Your task to perform on an android device: open app "Adobe Express: Graphic Design" Image 0: 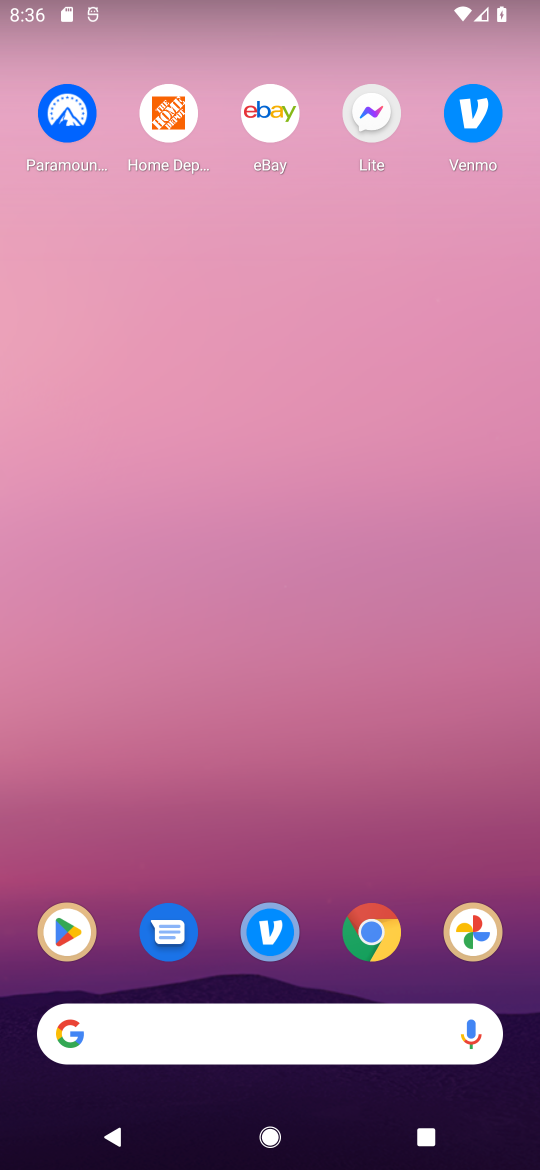
Step 0: click (55, 924)
Your task to perform on an android device: open app "Adobe Express: Graphic Design" Image 1: 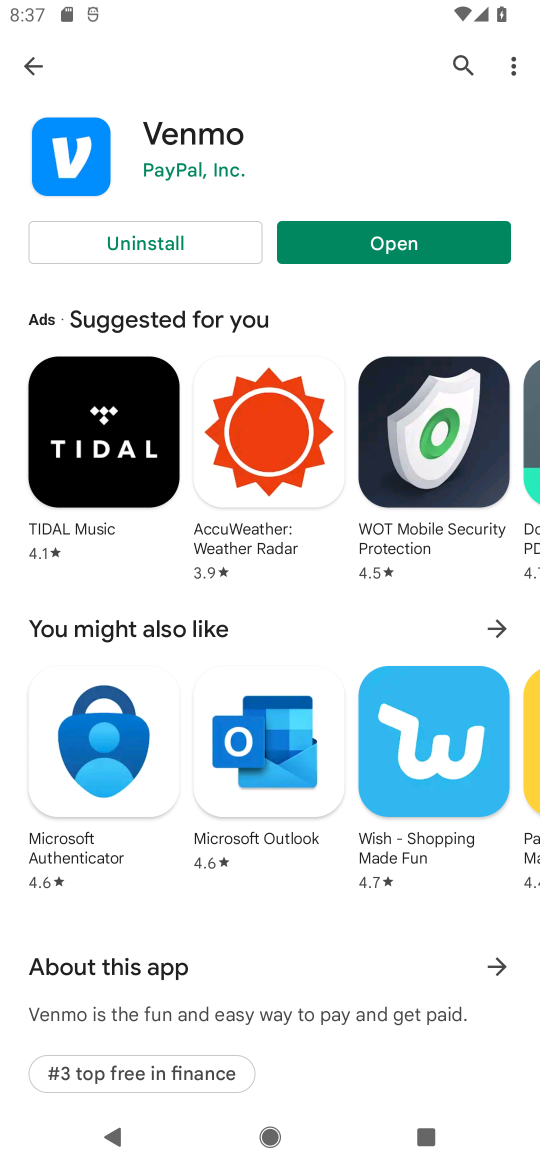
Step 1: click (449, 60)
Your task to perform on an android device: open app "Adobe Express: Graphic Design" Image 2: 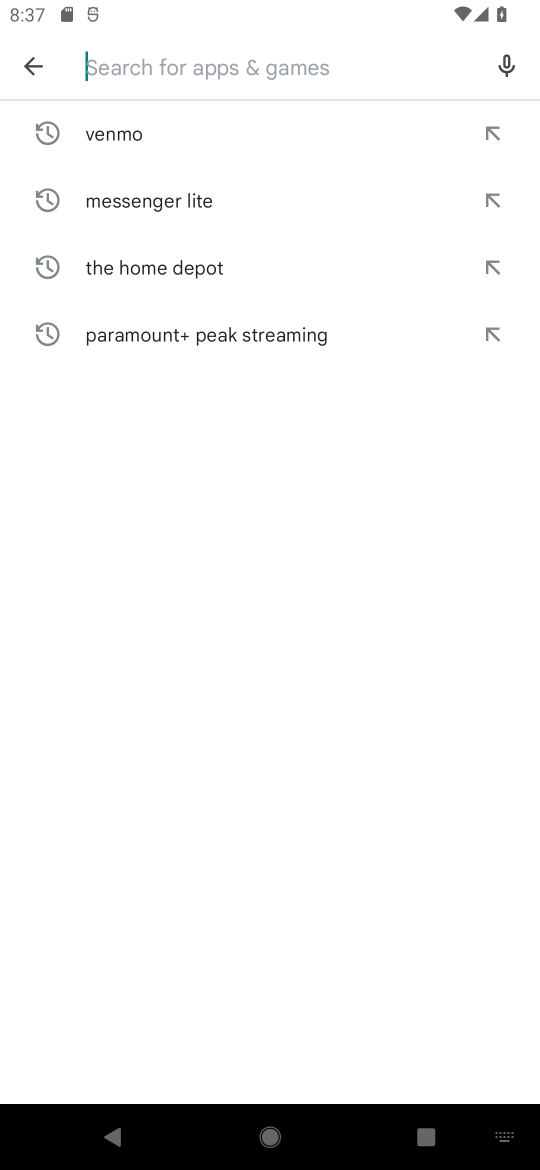
Step 2: type "adobe express: graphic design"
Your task to perform on an android device: open app "Adobe Express: Graphic Design" Image 3: 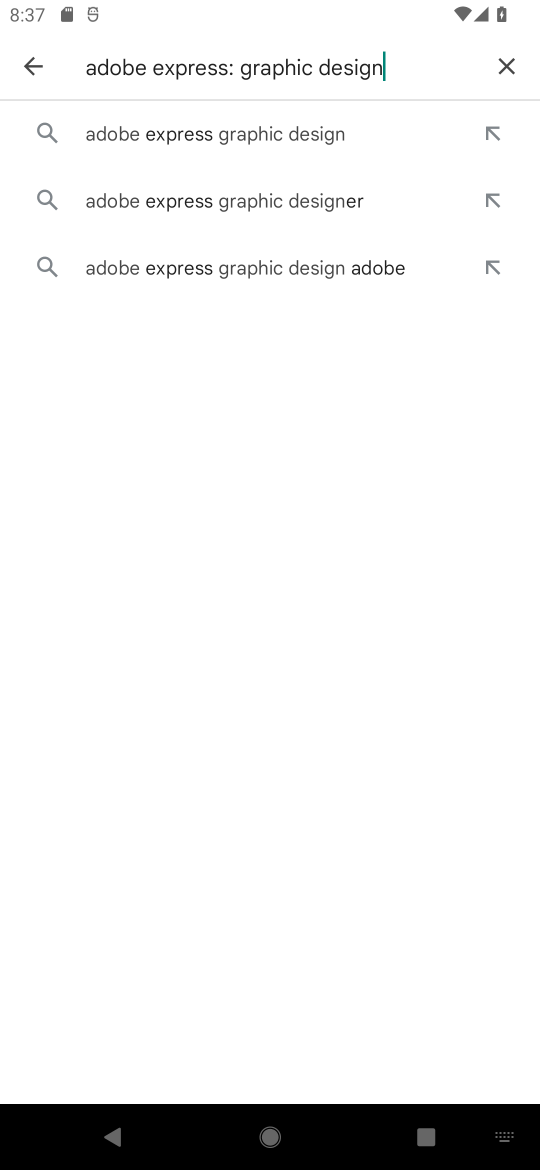
Step 3: click (282, 140)
Your task to perform on an android device: open app "Adobe Express: Graphic Design" Image 4: 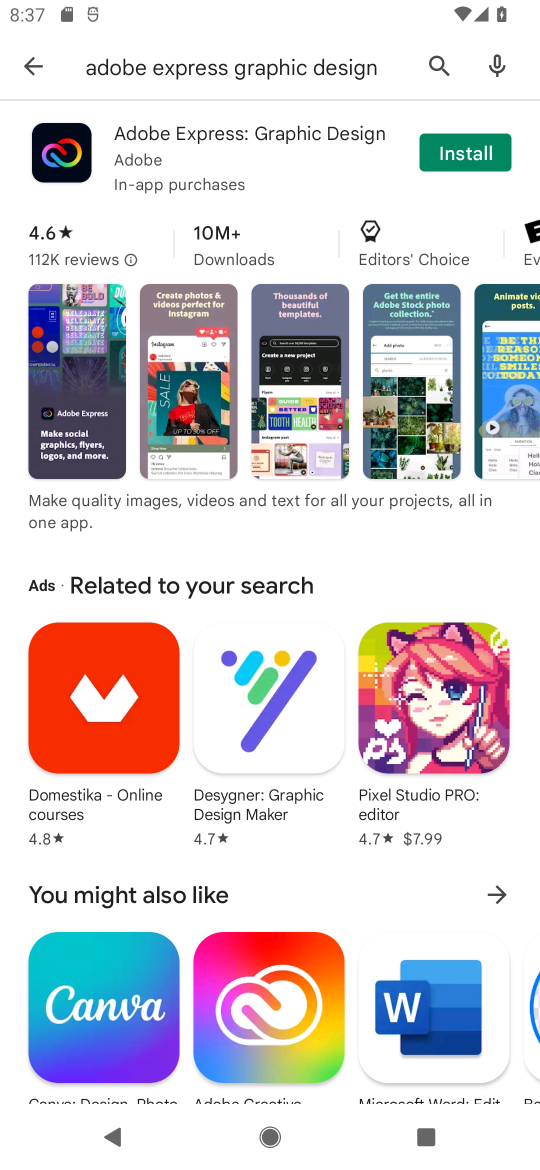
Step 4: click (239, 146)
Your task to perform on an android device: open app "Adobe Express: Graphic Design" Image 5: 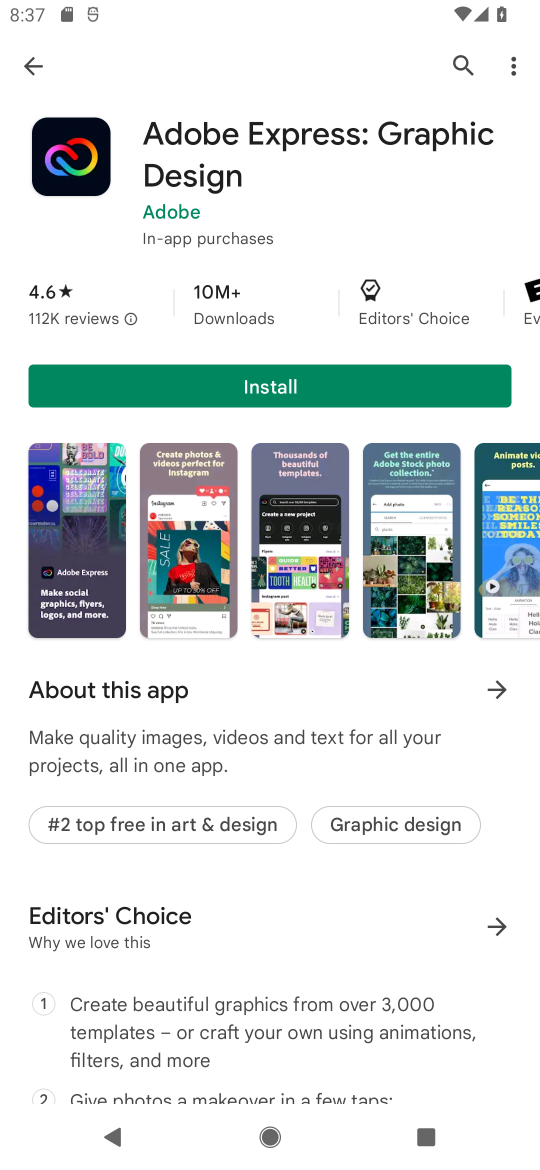
Step 5: task complete